Your task to perform on an android device: turn off javascript in the chrome app Image 0: 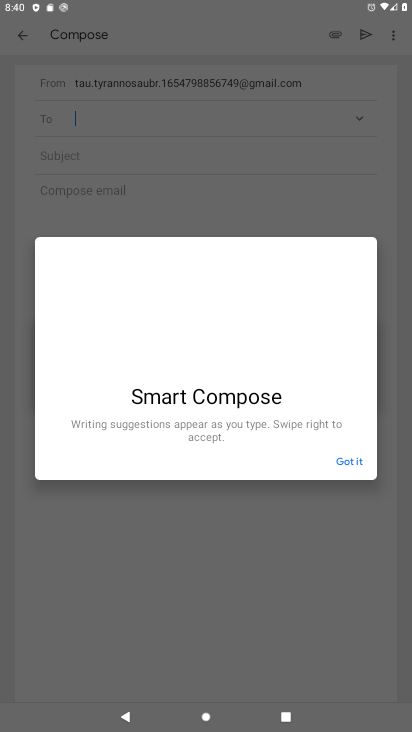
Step 0: press home button
Your task to perform on an android device: turn off javascript in the chrome app Image 1: 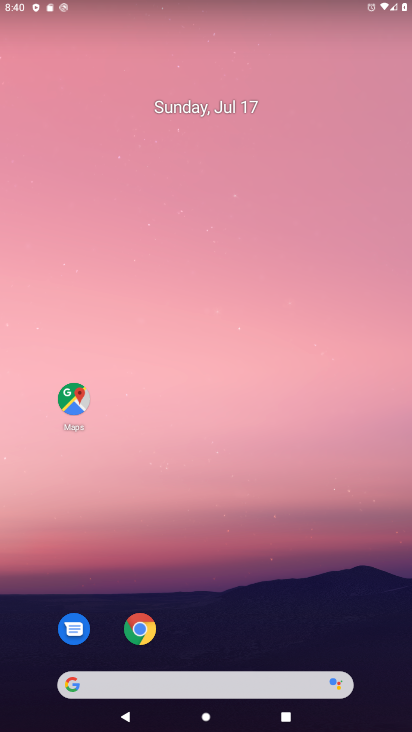
Step 1: click (143, 632)
Your task to perform on an android device: turn off javascript in the chrome app Image 2: 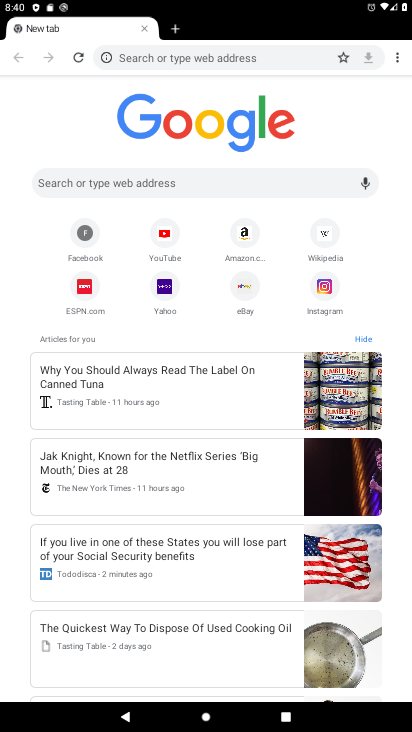
Step 2: click (396, 60)
Your task to perform on an android device: turn off javascript in the chrome app Image 3: 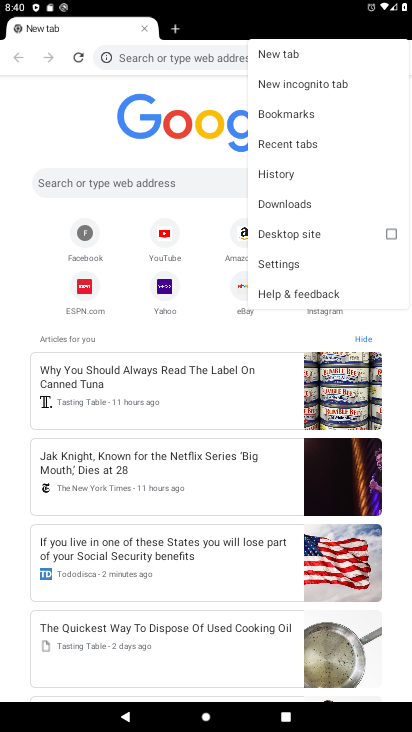
Step 3: click (264, 267)
Your task to perform on an android device: turn off javascript in the chrome app Image 4: 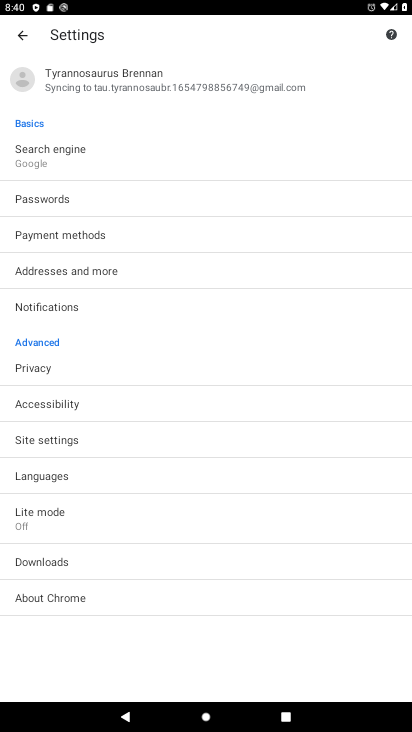
Step 4: click (115, 444)
Your task to perform on an android device: turn off javascript in the chrome app Image 5: 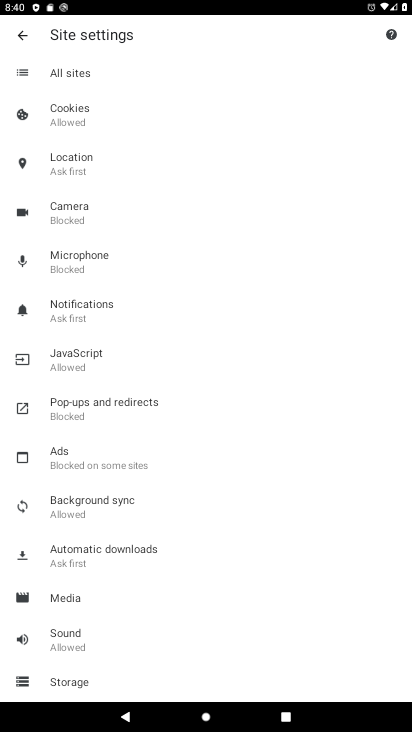
Step 5: click (117, 363)
Your task to perform on an android device: turn off javascript in the chrome app Image 6: 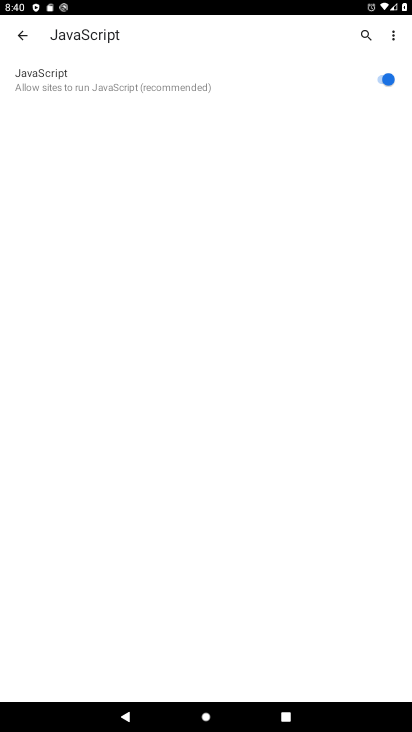
Step 6: click (375, 73)
Your task to perform on an android device: turn off javascript in the chrome app Image 7: 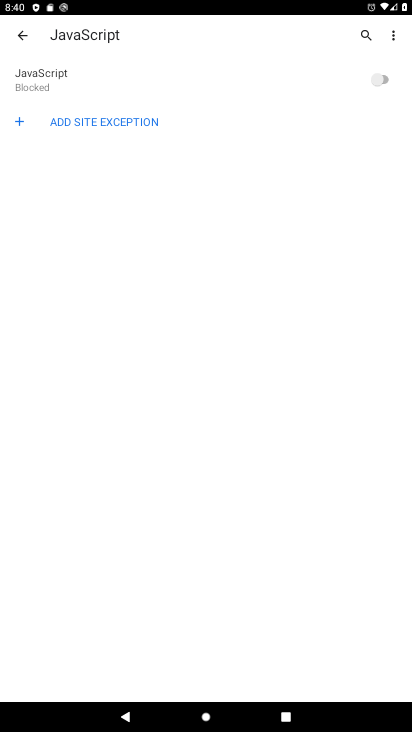
Step 7: task complete